Your task to perform on an android device: Search for seafood restaurants on Google Maps Image 0: 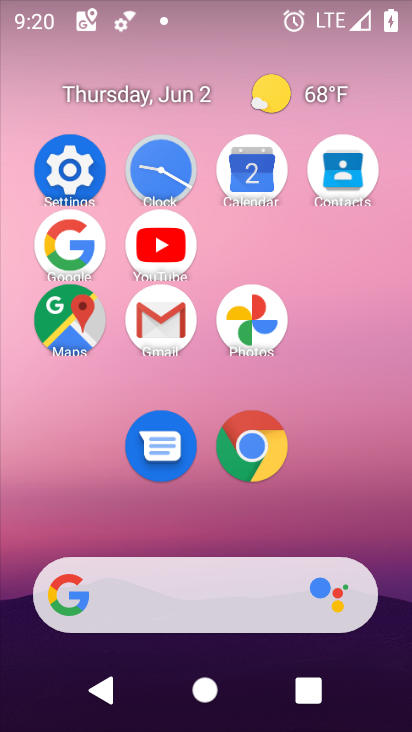
Step 0: click (84, 321)
Your task to perform on an android device: Search for seafood restaurants on Google Maps Image 1: 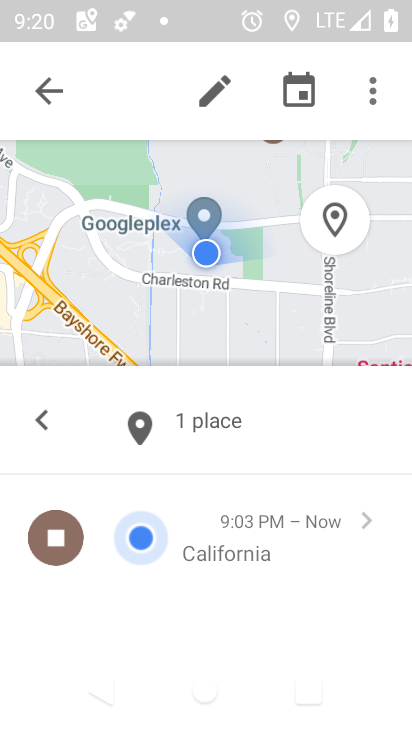
Step 1: click (48, 78)
Your task to perform on an android device: Search for seafood restaurants on Google Maps Image 2: 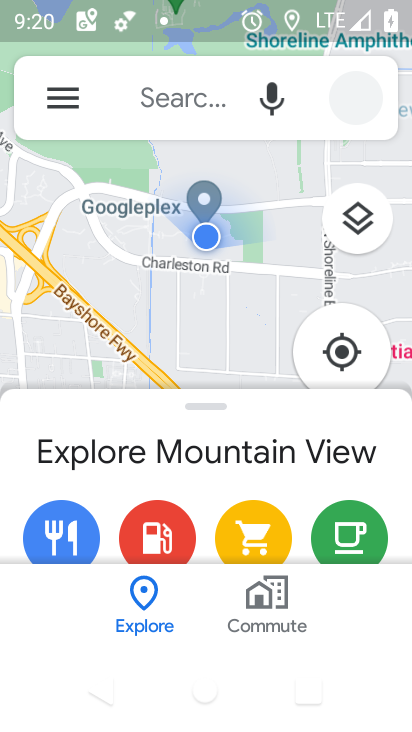
Step 2: click (167, 92)
Your task to perform on an android device: Search for seafood restaurants on Google Maps Image 3: 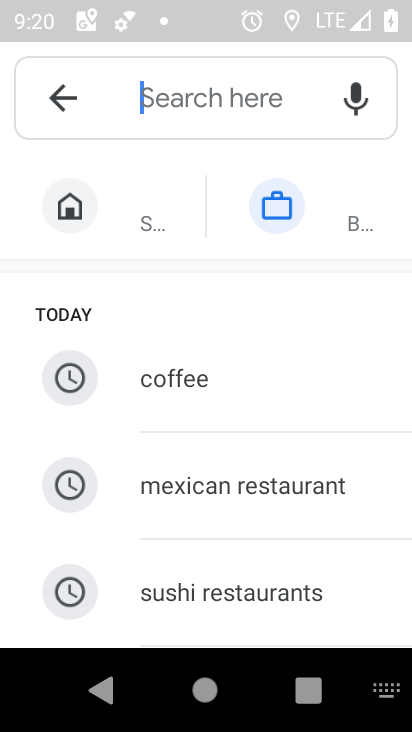
Step 3: drag from (211, 603) to (250, 204)
Your task to perform on an android device: Search for seafood restaurants on Google Maps Image 4: 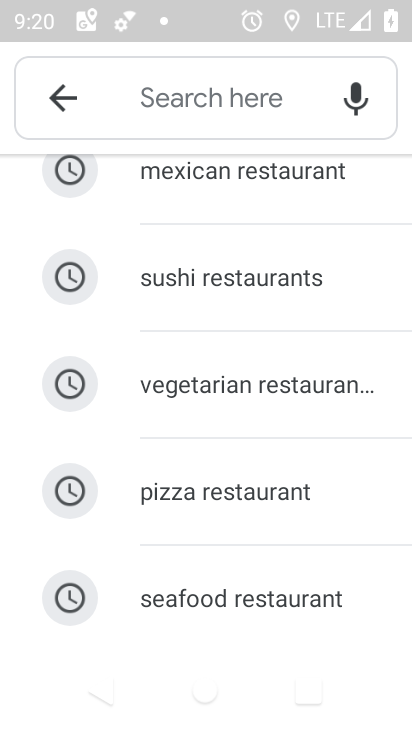
Step 4: click (174, 594)
Your task to perform on an android device: Search for seafood restaurants on Google Maps Image 5: 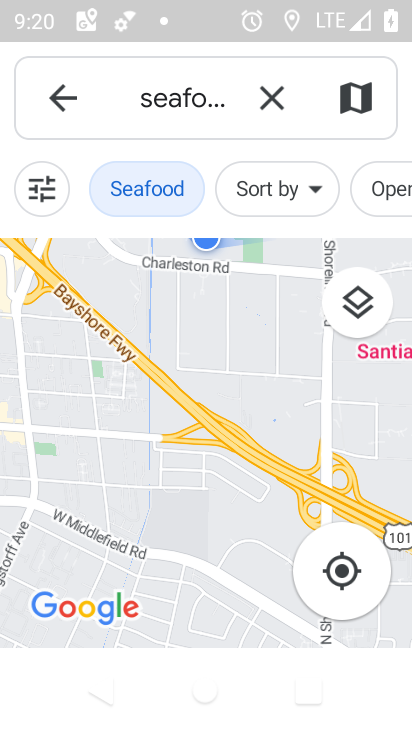
Step 5: task complete